Your task to perform on an android device: Open the calendar and show me this week's events Image 0: 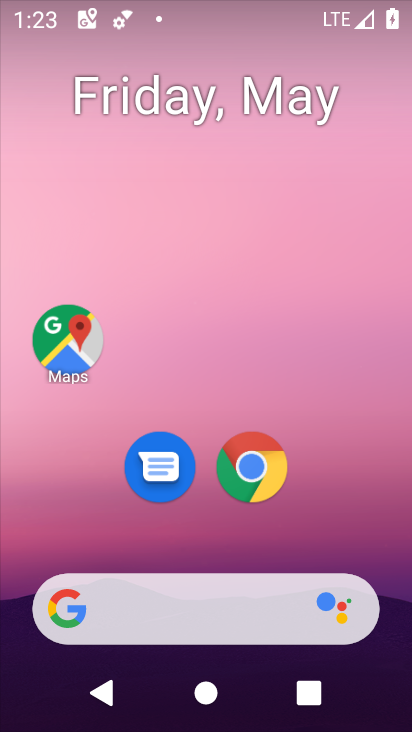
Step 0: drag from (358, 488) to (277, 32)
Your task to perform on an android device: Open the calendar and show me this week's events Image 1: 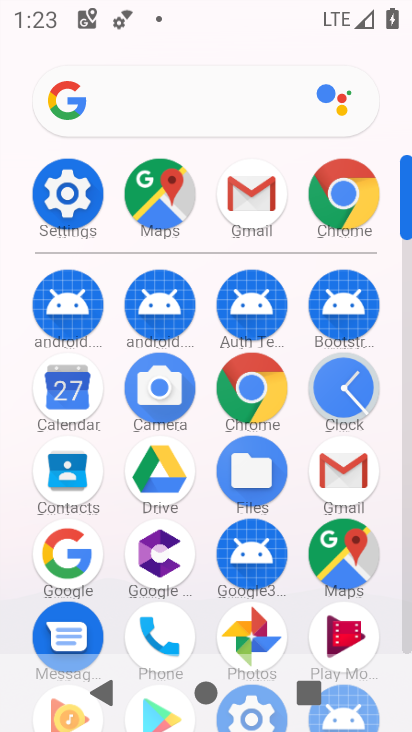
Step 1: click (57, 375)
Your task to perform on an android device: Open the calendar and show me this week's events Image 2: 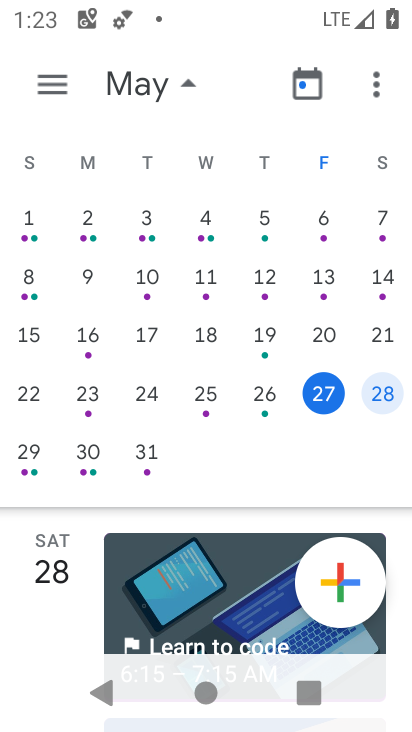
Step 2: drag from (263, 426) to (8, 495)
Your task to perform on an android device: Open the calendar and show me this week's events Image 3: 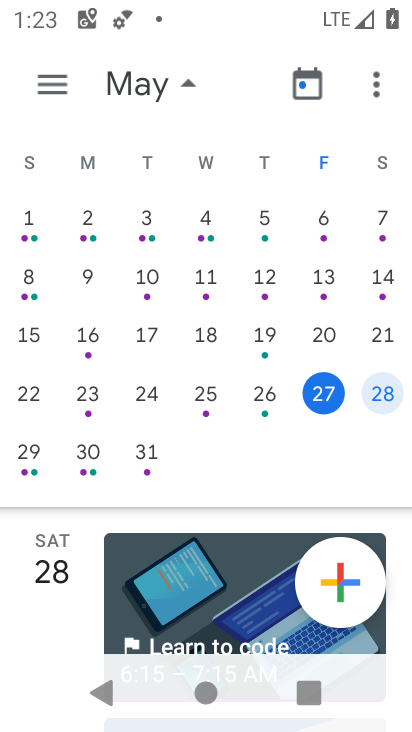
Step 3: click (145, 234)
Your task to perform on an android device: Open the calendar and show me this week's events Image 4: 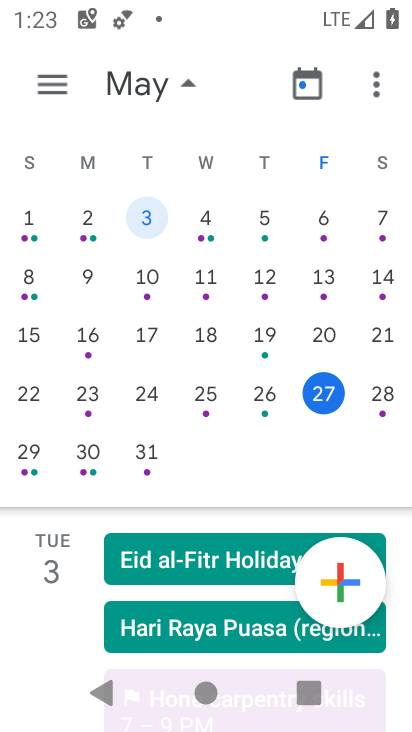
Step 4: task complete